Your task to perform on an android device: change the clock display to digital Image 0: 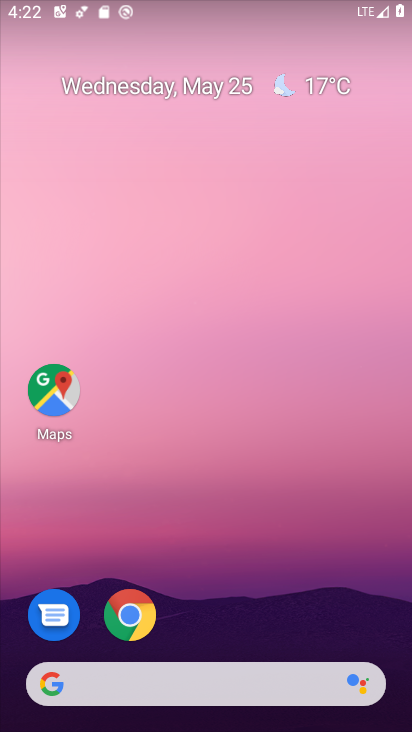
Step 0: drag from (296, 458) to (184, 20)
Your task to perform on an android device: change the clock display to digital Image 1: 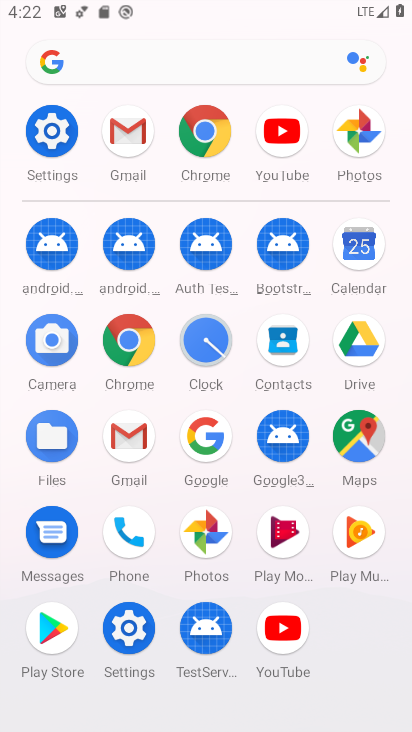
Step 1: click (224, 340)
Your task to perform on an android device: change the clock display to digital Image 2: 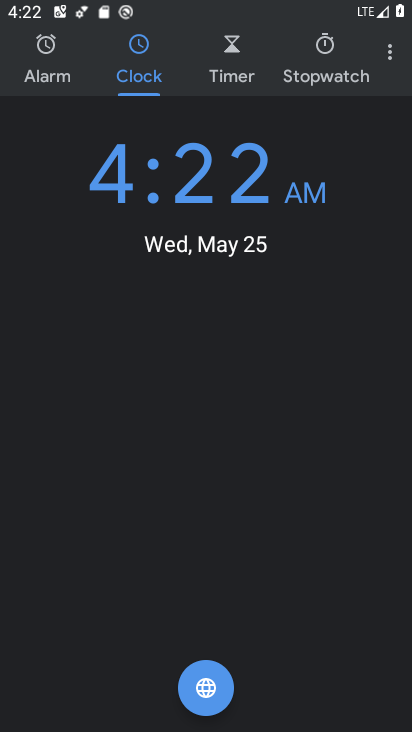
Step 2: click (392, 50)
Your task to perform on an android device: change the clock display to digital Image 3: 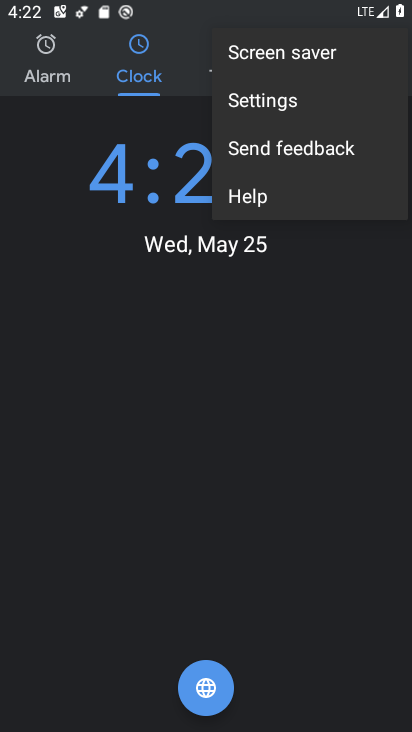
Step 3: click (303, 98)
Your task to perform on an android device: change the clock display to digital Image 4: 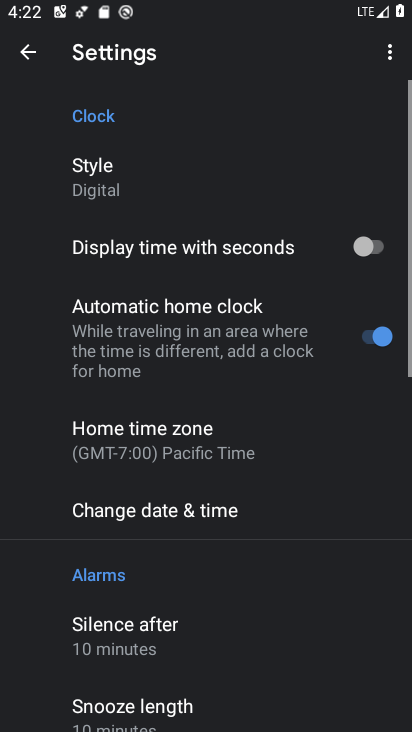
Step 4: click (101, 175)
Your task to perform on an android device: change the clock display to digital Image 5: 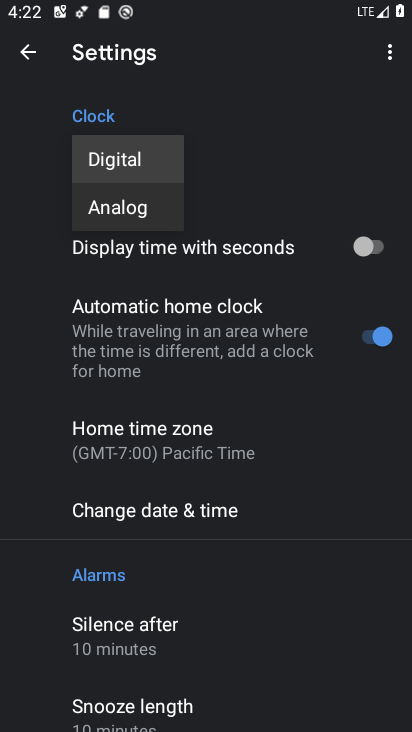
Step 5: press home button
Your task to perform on an android device: change the clock display to digital Image 6: 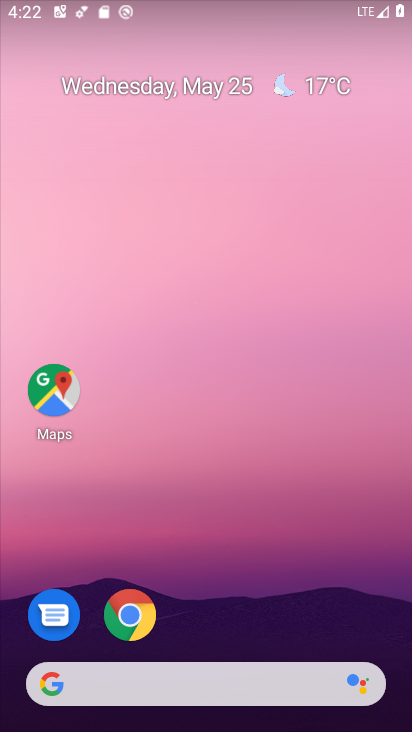
Step 6: drag from (278, 555) to (200, 0)
Your task to perform on an android device: change the clock display to digital Image 7: 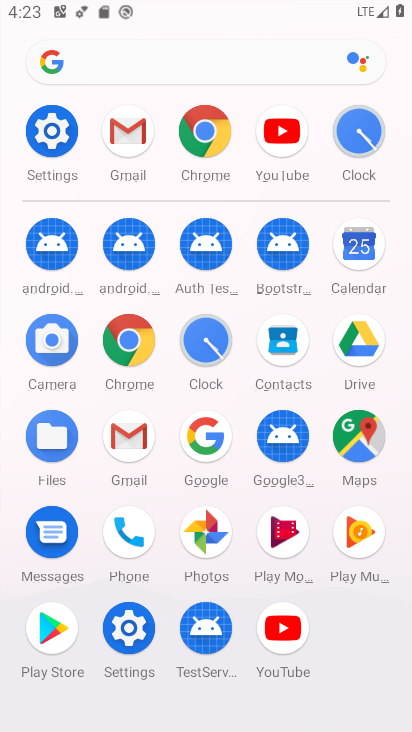
Step 7: click (356, 131)
Your task to perform on an android device: change the clock display to digital Image 8: 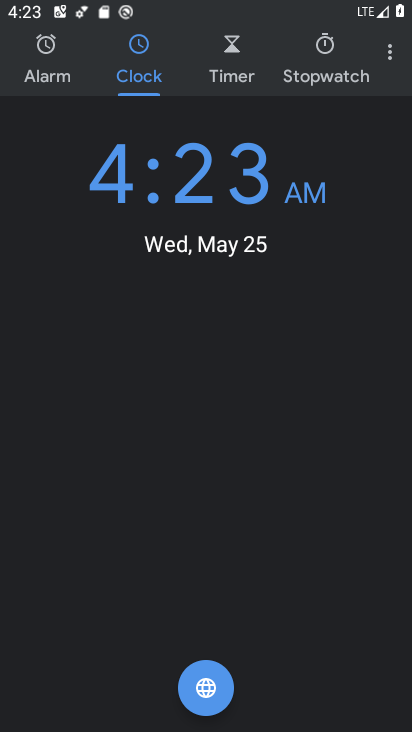
Step 8: click (389, 53)
Your task to perform on an android device: change the clock display to digital Image 9: 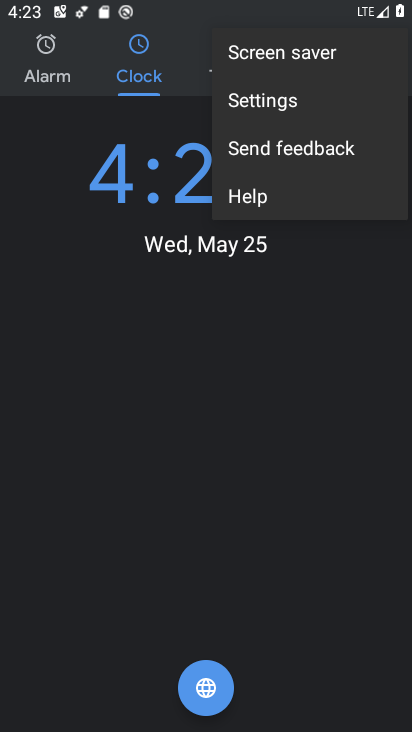
Step 9: click (263, 102)
Your task to perform on an android device: change the clock display to digital Image 10: 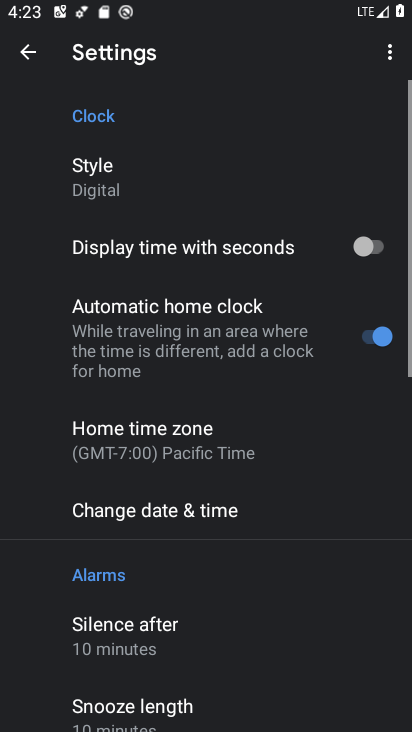
Step 10: click (108, 186)
Your task to perform on an android device: change the clock display to digital Image 11: 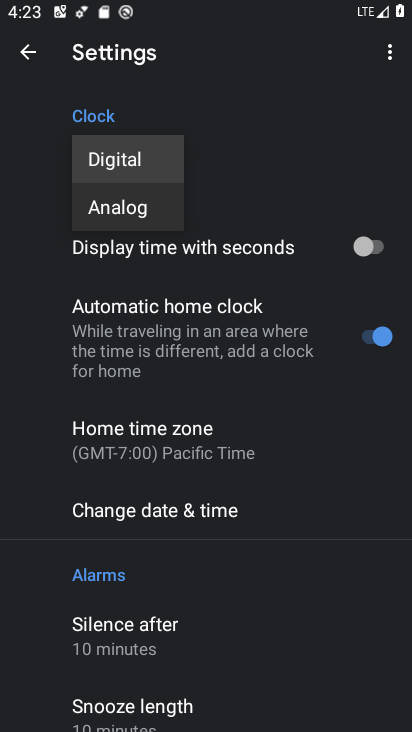
Step 11: task complete